Your task to perform on an android device: delete browsing data in the chrome app Image 0: 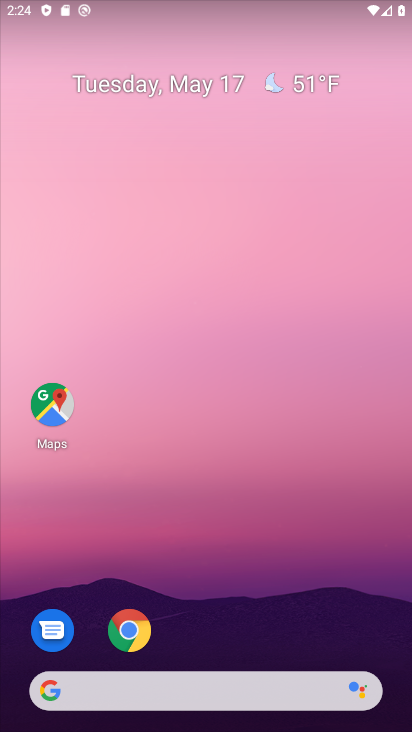
Step 0: click (398, 514)
Your task to perform on an android device: delete browsing data in the chrome app Image 1: 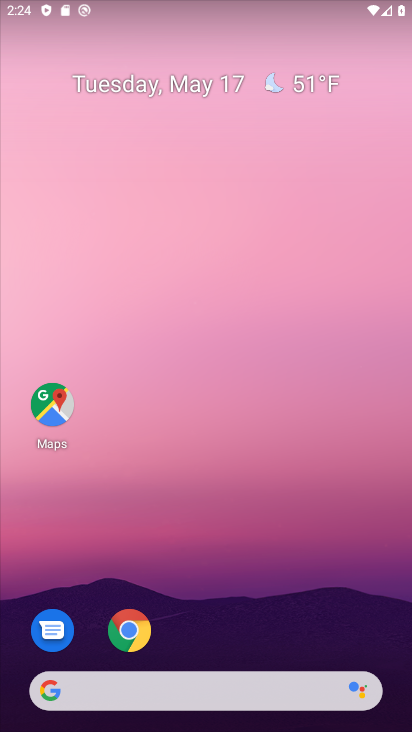
Step 1: click (121, 631)
Your task to perform on an android device: delete browsing data in the chrome app Image 2: 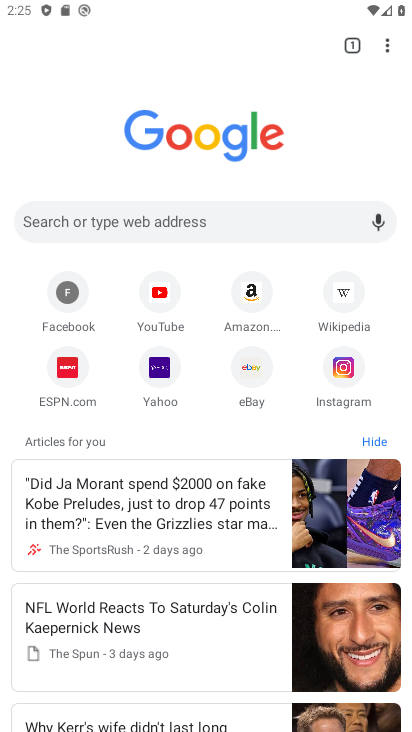
Step 2: click (389, 46)
Your task to perform on an android device: delete browsing data in the chrome app Image 3: 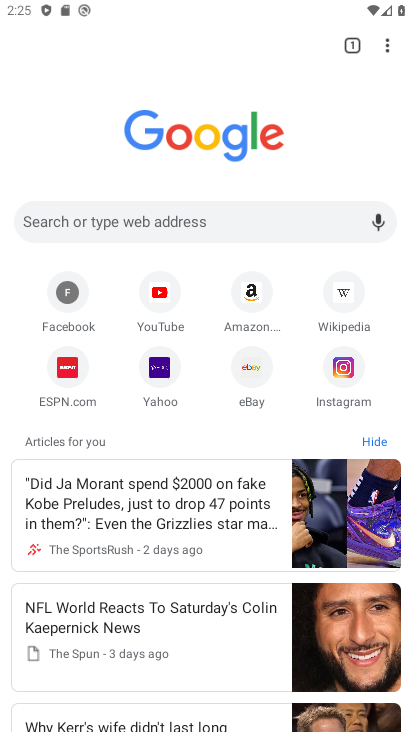
Step 3: click (386, 50)
Your task to perform on an android device: delete browsing data in the chrome app Image 4: 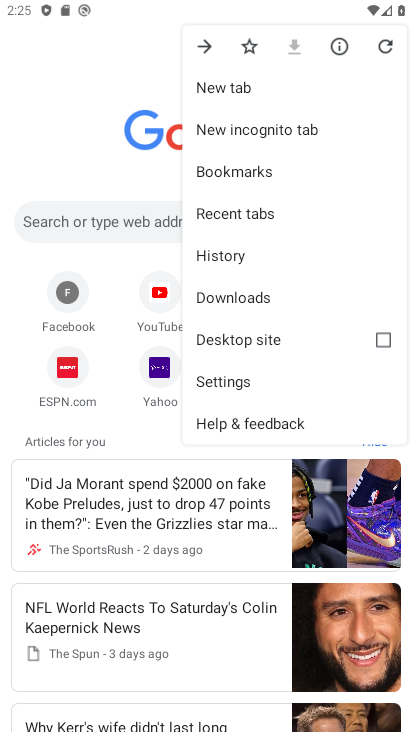
Step 4: click (215, 256)
Your task to perform on an android device: delete browsing data in the chrome app Image 5: 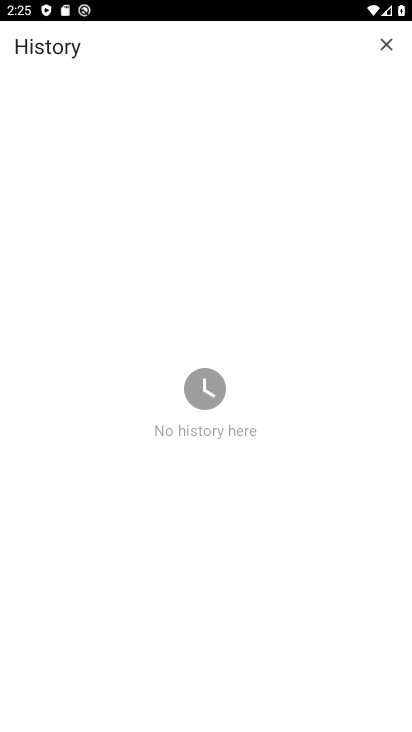
Step 5: task complete